Your task to perform on an android device: Toggle the flashlight Image 0: 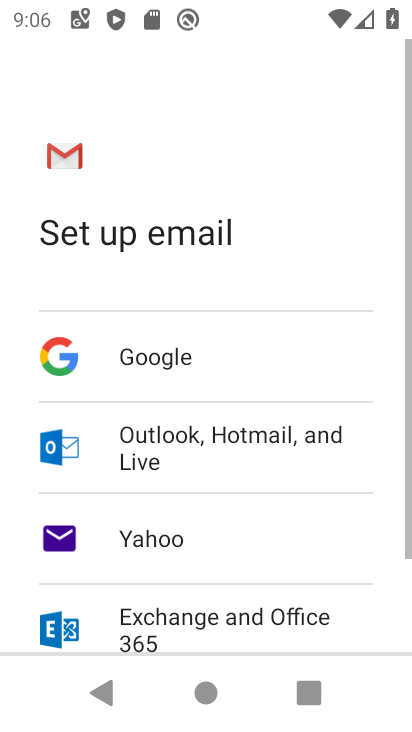
Step 0: press home button
Your task to perform on an android device: Toggle the flashlight Image 1: 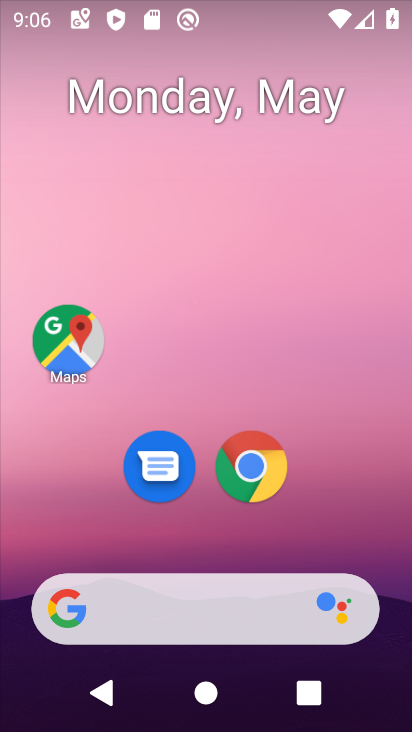
Step 1: drag from (256, 650) to (293, 137)
Your task to perform on an android device: Toggle the flashlight Image 2: 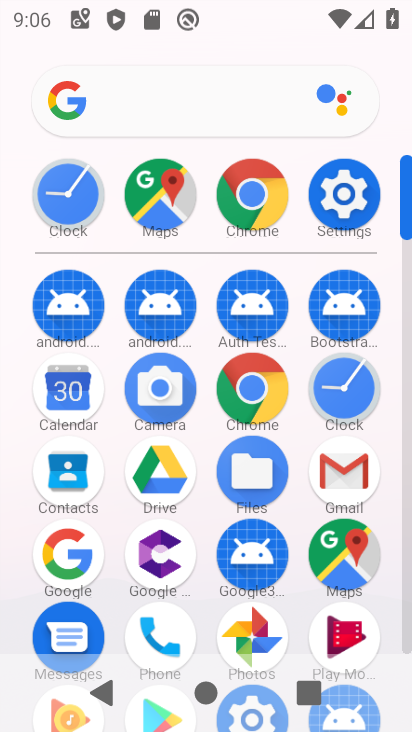
Step 2: click (342, 188)
Your task to perform on an android device: Toggle the flashlight Image 3: 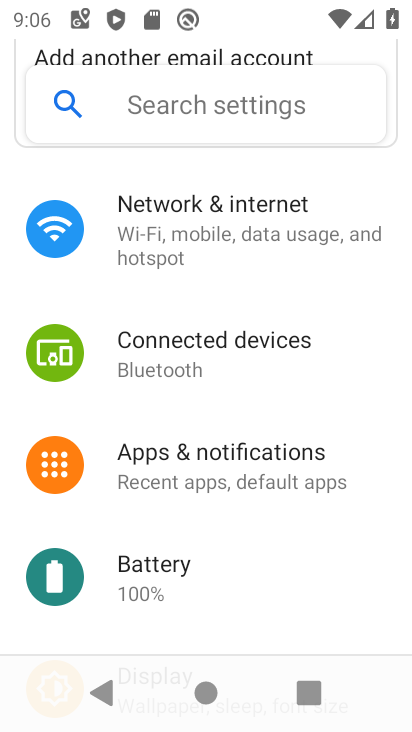
Step 3: click (186, 92)
Your task to perform on an android device: Toggle the flashlight Image 4: 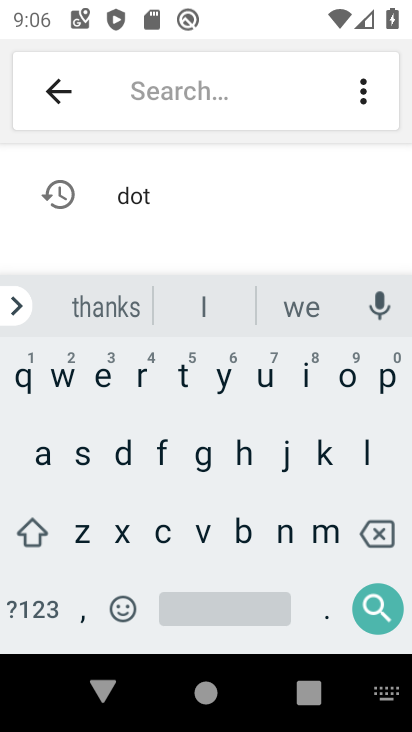
Step 4: click (152, 477)
Your task to perform on an android device: Toggle the flashlight Image 5: 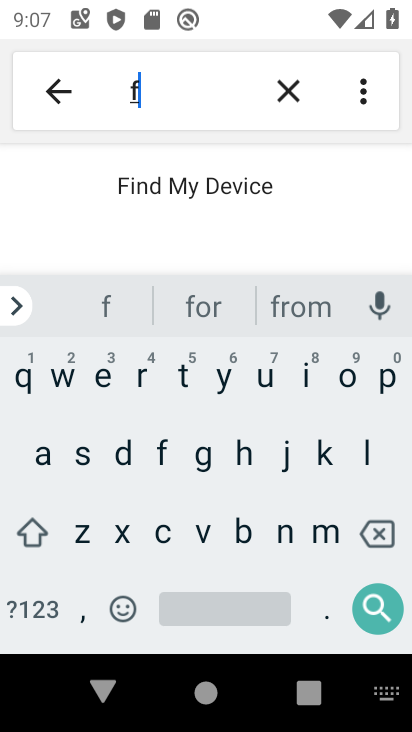
Step 5: click (369, 446)
Your task to perform on an android device: Toggle the flashlight Image 6: 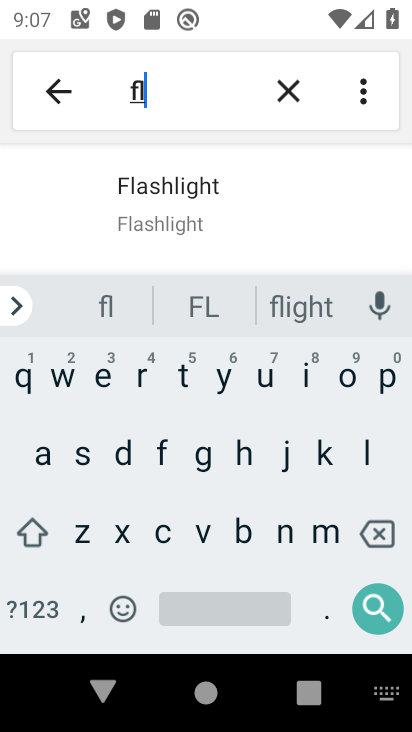
Step 6: click (209, 198)
Your task to perform on an android device: Toggle the flashlight Image 7: 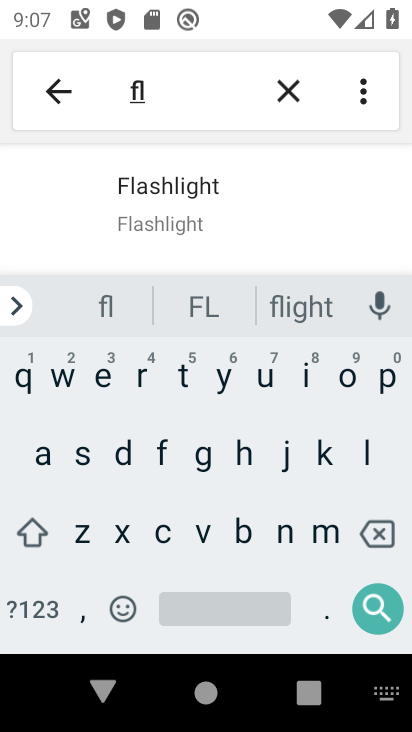
Step 7: task complete